Your task to perform on an android device: open sync settings in chrome Image 0: 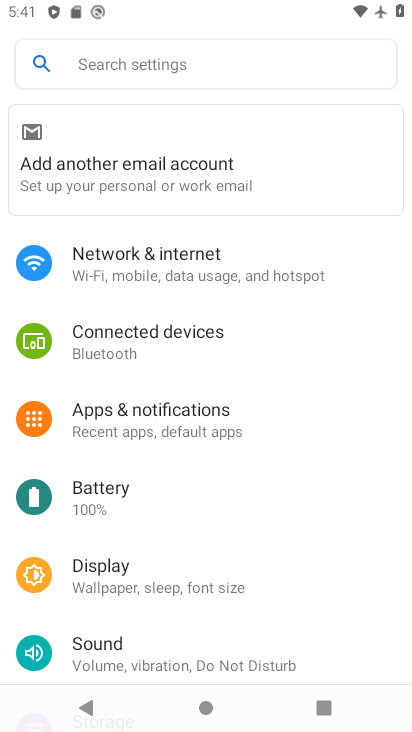
Step 0: press home button
Your task to perform on an android device: open sync settings in chrome Image 1: 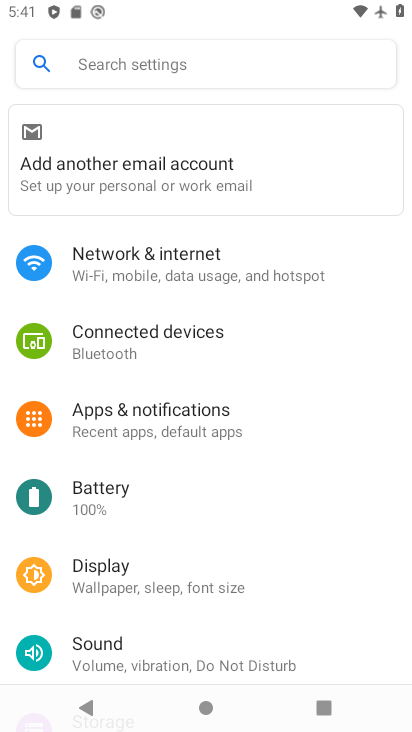
Step 1: press home button
Your task to perform on an android device: open sync settings in chrome Image 2: 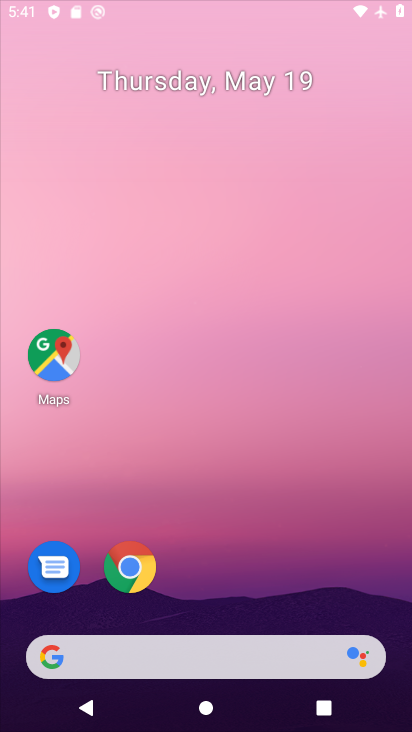
Step 2: press home button
Your task to perform on an android device: open sync settings in chrome Image 3: 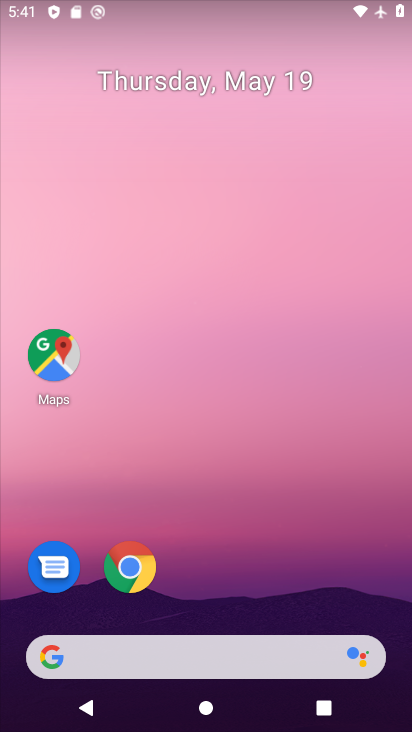
Step 3: press home button
Your task to perform on an android device: open sync settings in chrome Image 4: 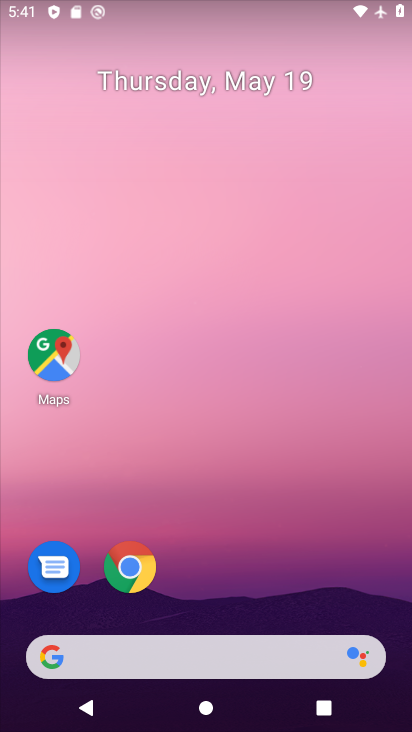
Step 4: drag from (269, 685) to (269, 96)
Your task to perform on an android device: open sync settings in chrome Image 5: 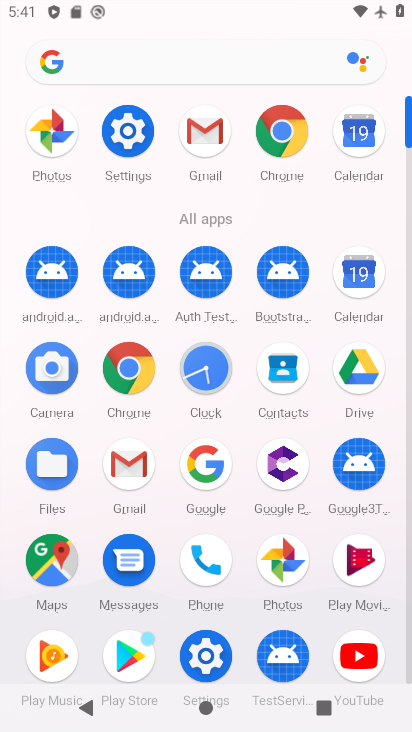
Step 5: click (273, 123)
Your task to perform on an android device: open sync settings in chrome Image 6: 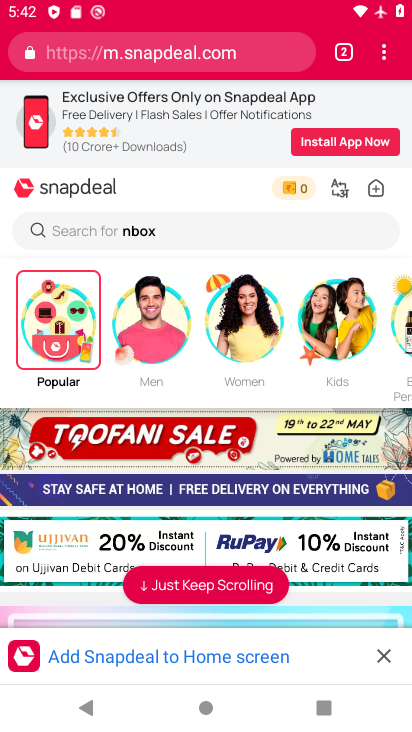
Step 6: click (376, 57)
Your task to perform on an android device: open sync settings in chrome Image 7: 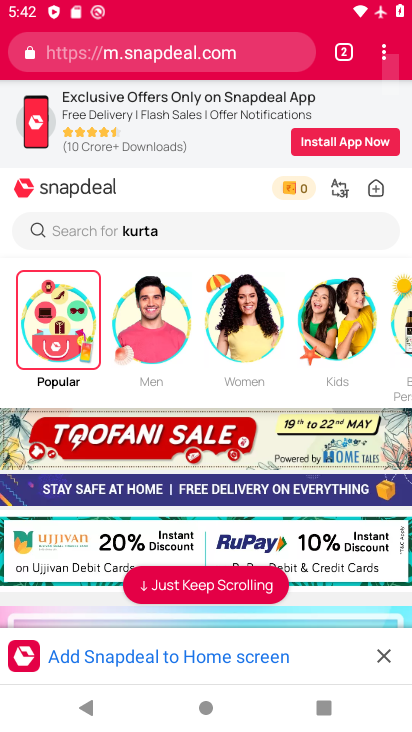
Step 7: click (376, 57)
Your task to perform on an android device: open sync settings in chrome Image 8: 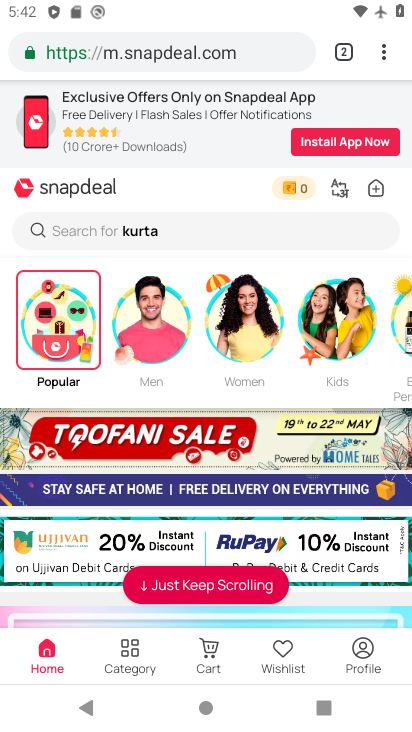
Step 8: drag from (376, 53) to (200, 587)
Your task to perform on an android device: open sync settings in chrome Image 9: 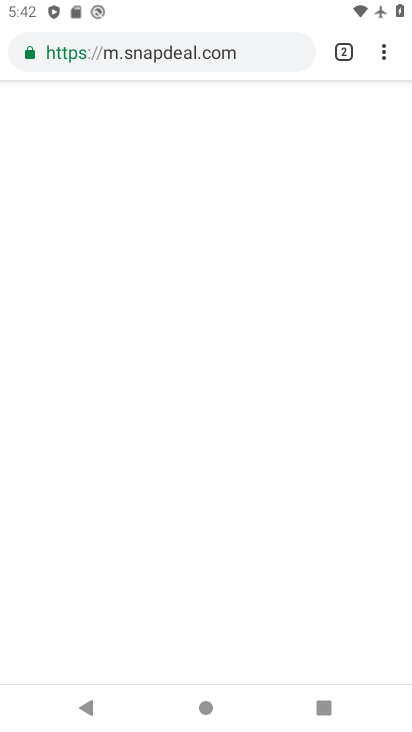
Step 9: click (198, 578)
Your task to perform on an android device: open sync settings in chrome Image 10: 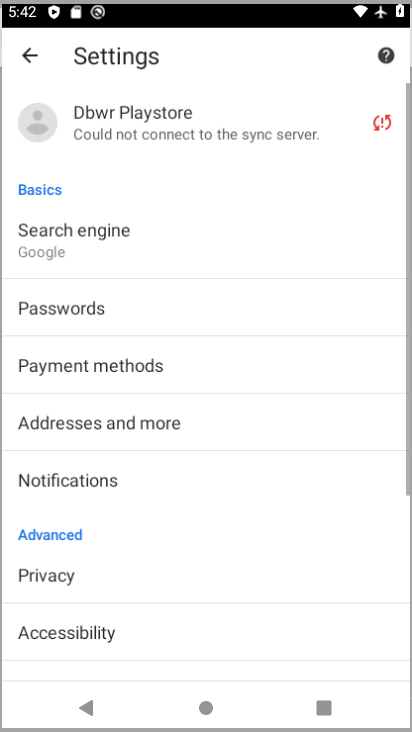
Step 10: click (198, 578)
Your task to perform on an android device: open sync settings in chrome Image 11: 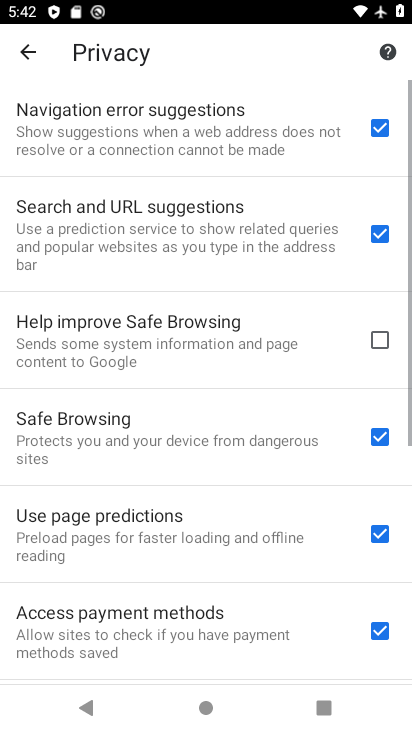
Step 11: click (23, 61)
Your task to perform on an android device: open sync settings in chrome Image 12: 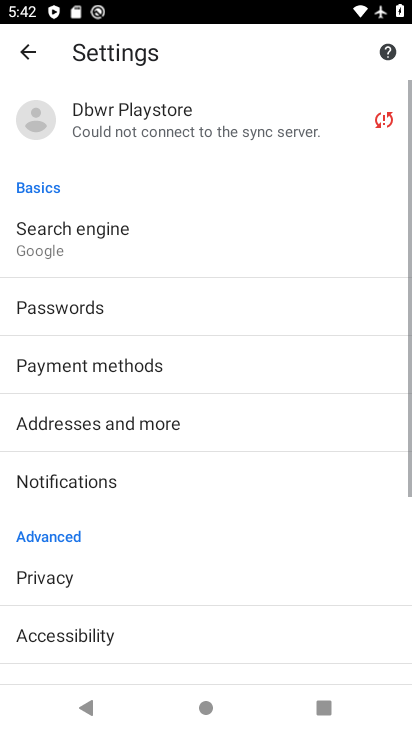
Step 12: drag from (108, 546) to (121, 111)
Your task to perform on an android device: open sync settings in chrome Image 13: 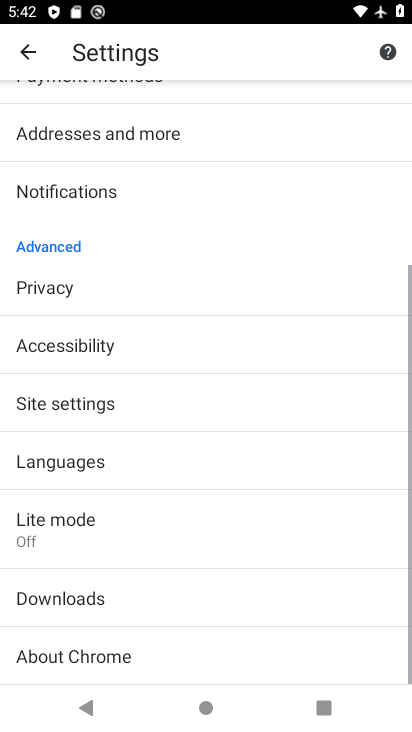
Step 13: drag from (134, 406) to (168, 28)
Your task to perform on an android device: open sync settings in chrome Image 14: 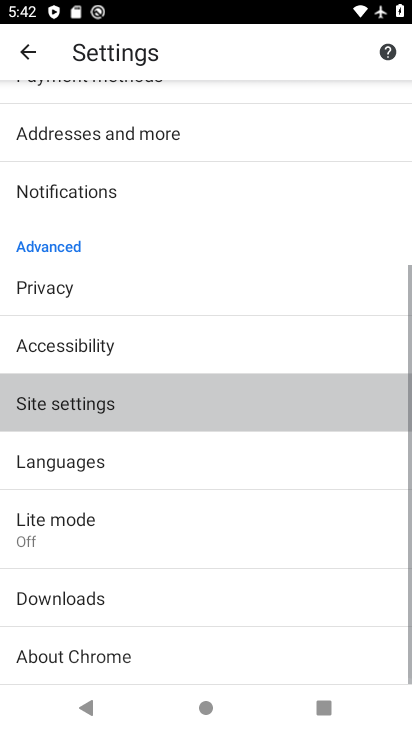
Step 14: drag from (201, 571) to (255, 166)
Your task to perform on an android device: open sync settings in chrome Image 15: 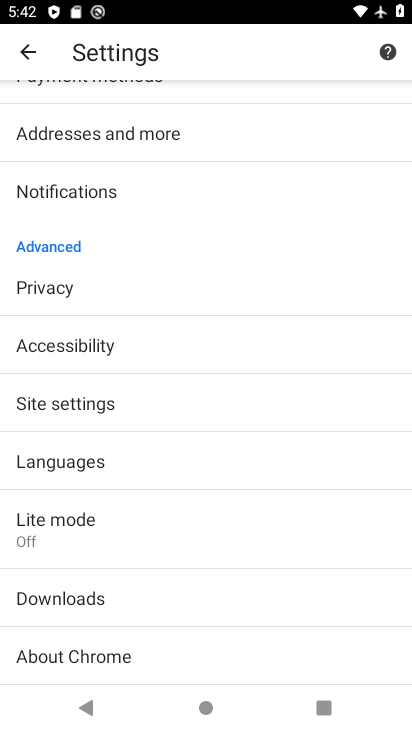
Step 15: click (55, 391)
Your task to perform on an android device: open sync settings in chrome Image 16: 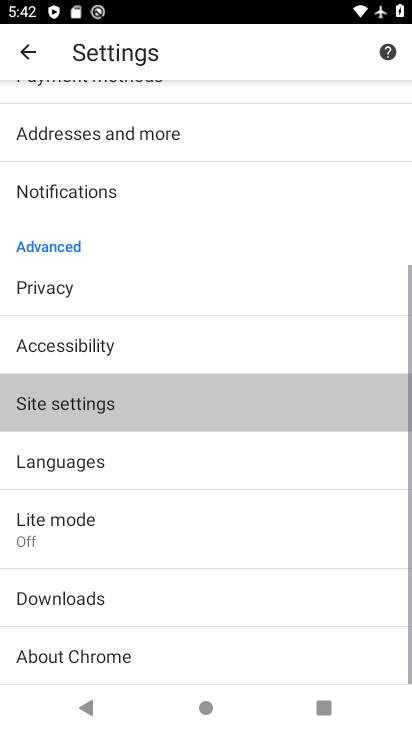
Step 16: click (55, 396)
Your task to perform on an android device: open sync settings in chrome Image 17: 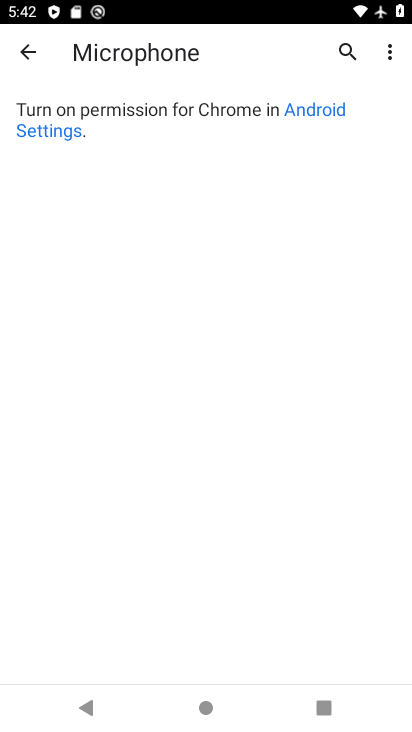
Step 17: click (21, 43)
Your task to perform on an android device: open sync settings in chrome Image 18: 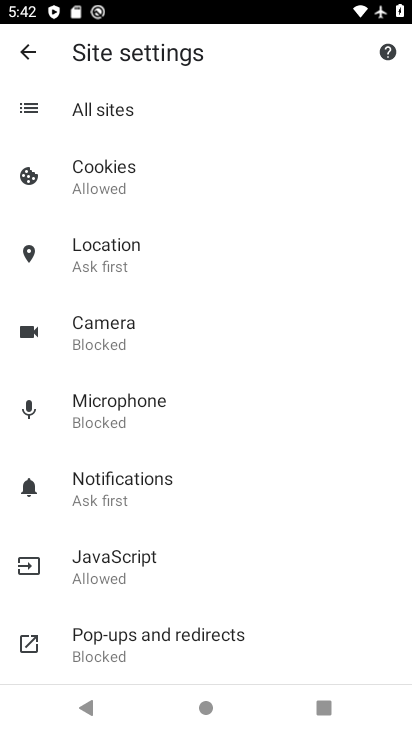
Step 18: drag from (120, 571) to (91, 131)
Your task to perform on an android device: open sync settings in chrome Image 19: 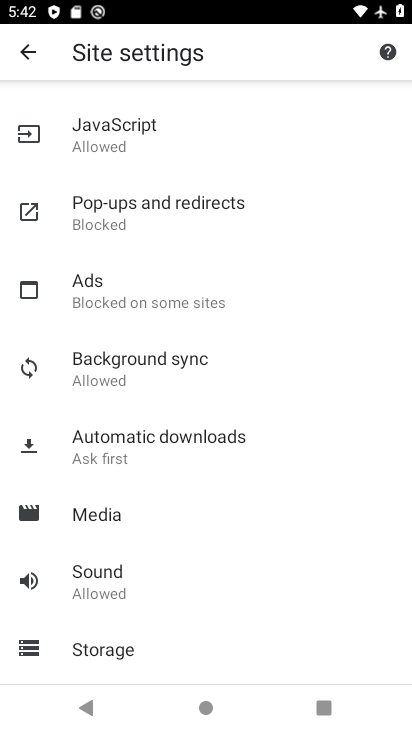
Step 19: click (115, 363)
Your task to perform on an android device: open sync settings in chrome Image 20: 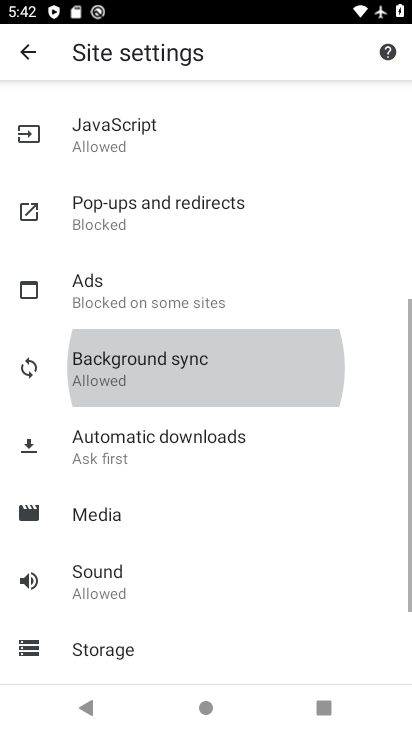
Step 20: click (115, 363)
Your task to perform on an android device: open sync settings in chrome Image 21: 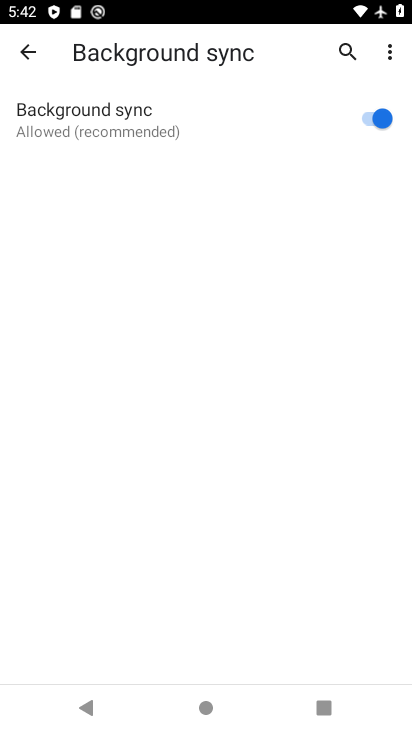
Step 21: task complete